Your task to perform on an android device: open chrome privacy settings Image 0: 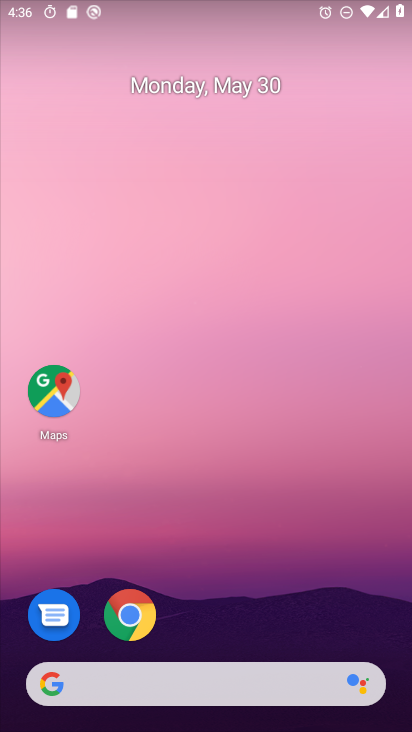
Step 0: click (131, 613)
Your task to perform on an android device: open chrome privacy settings Image 1: 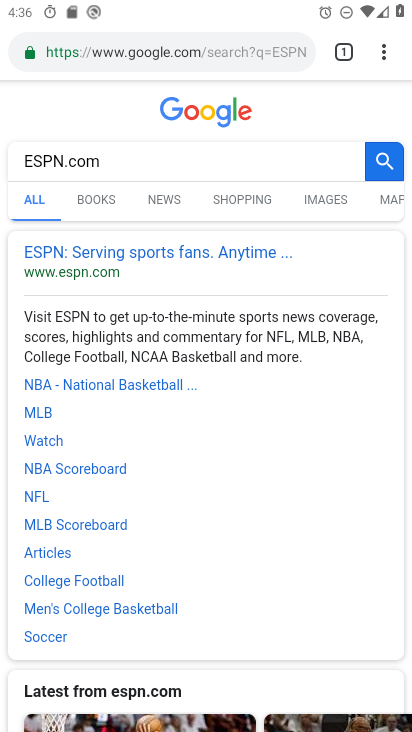
Step 1: click (386, 53)
Your task to perform on an android device: open chrome privacy settings Image 2: 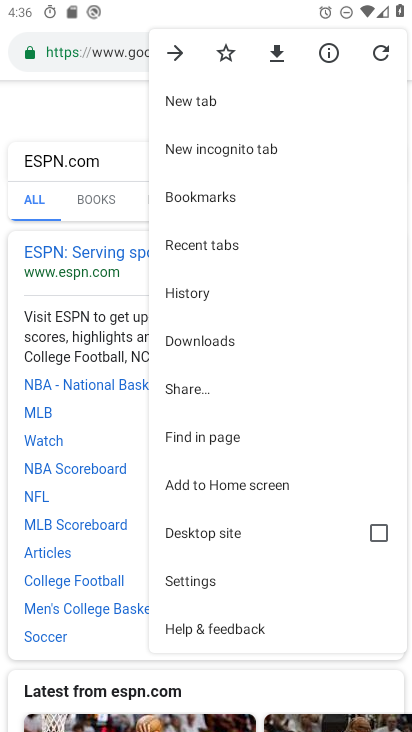
Step 2: click (201, 582)
Your task to perform on an android device: open chrome privacy settings Image 3: 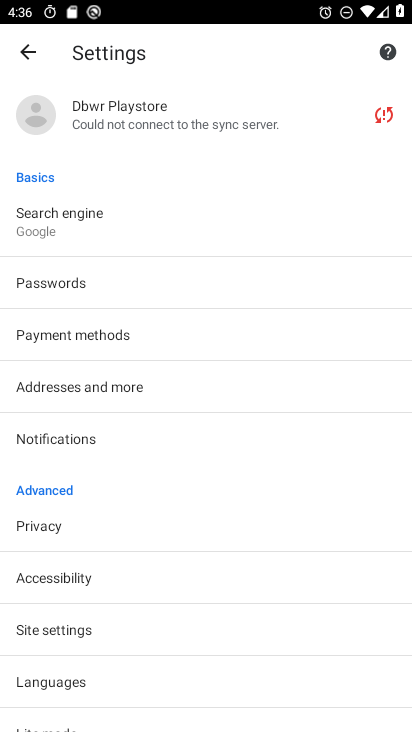
Step 3: click (53, 529)
Your task to perform on an android device: open chrome privacy settings Image 4: 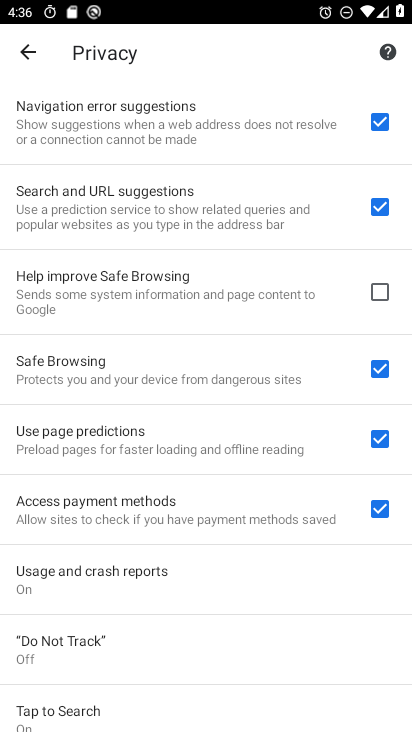
Step 4: task complete